Your task to perform on an android device: Is it going to rain today? Image 0: 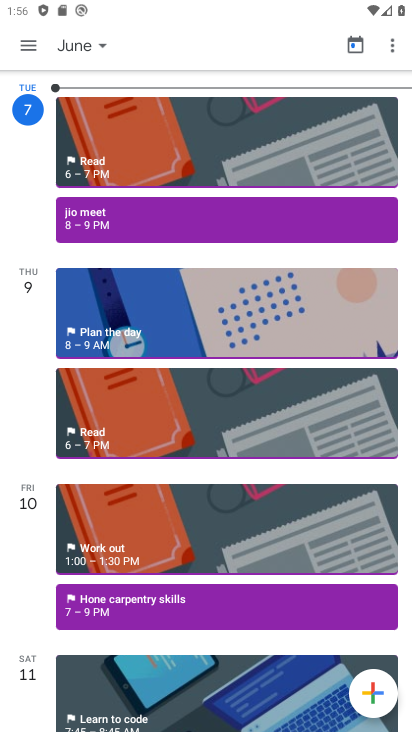
Step 0: press home button
Your task to perform on an android device: Is it going to rain today? Image 1: 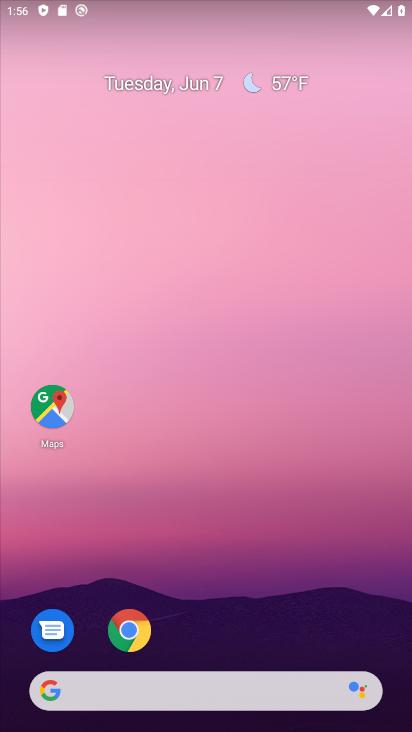
Step 1: drag from (395, 704) to (383, 100)
Your task to perform on an android device: Is it going to rain today? Image 2: 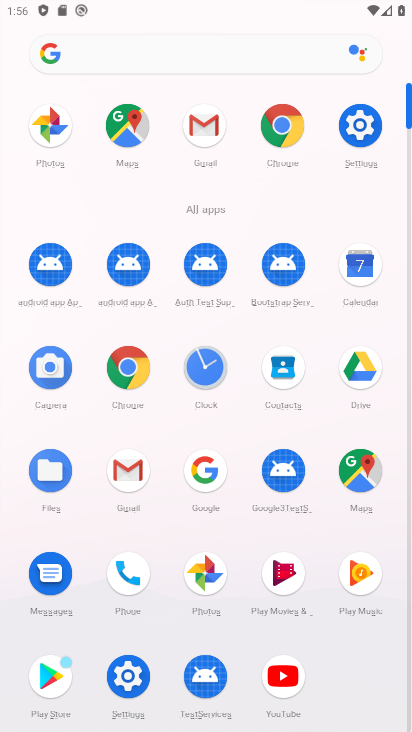
Step 2: click (363, 119)
Your task to perform on an android device: Is it going to rain today? Image 3: 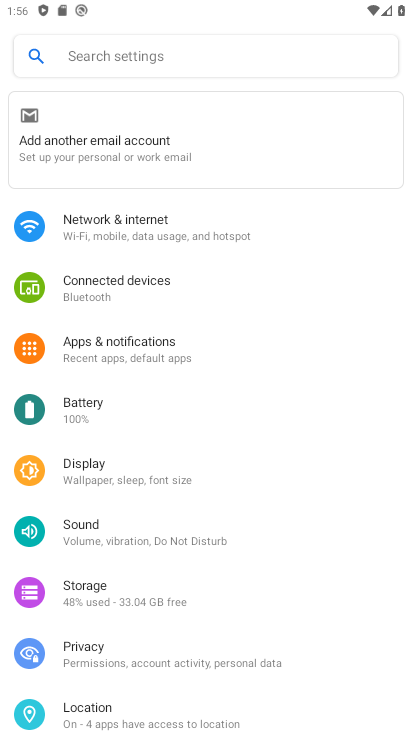
Step 3: press home button
Your task to perform on an android device: Is it going to rain today? Image 4: 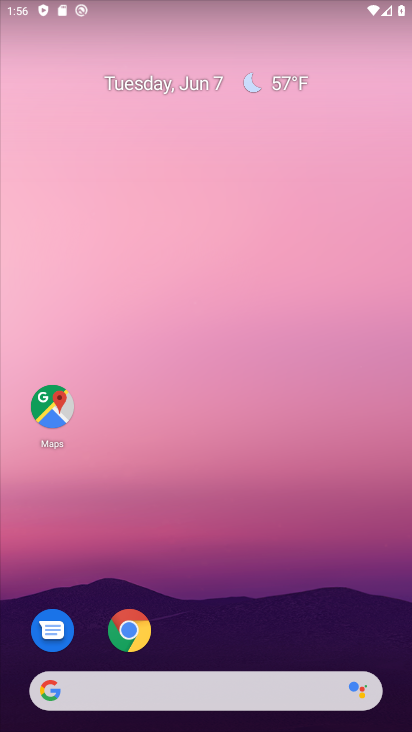
Step 4: click (285, 76)
Your task to perform on an android device: Is it going to rain today? Image 5: 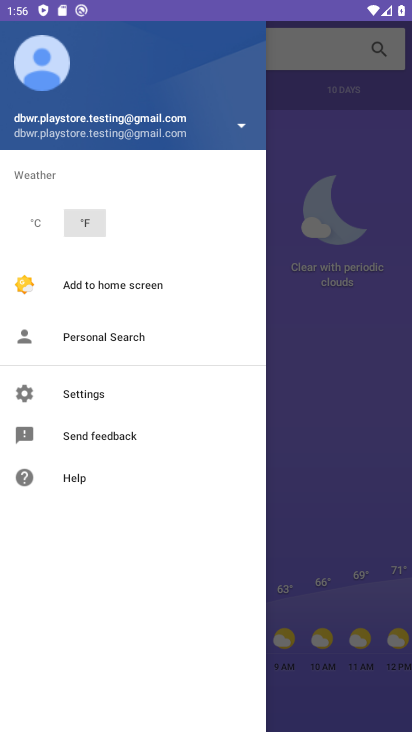
Step 5: click (394, 324)
Your task to perform on an android device: Is it going to rain today? Image 6: 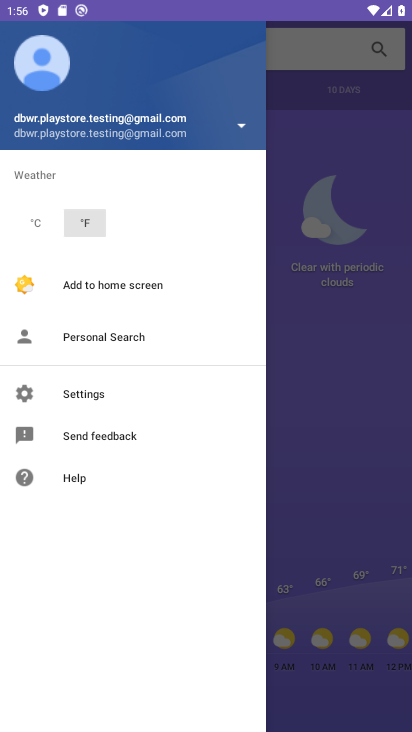
Step 6: task complete